Your task to perform on an android device: allow cookies in the chrome app Image 0: 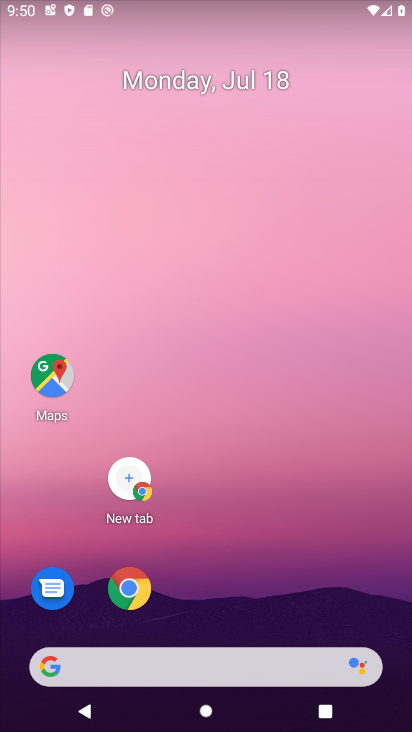
Step 0: click (133, 579)
Your task to perform on an android device: allow cookies in the chrome app Image 1: 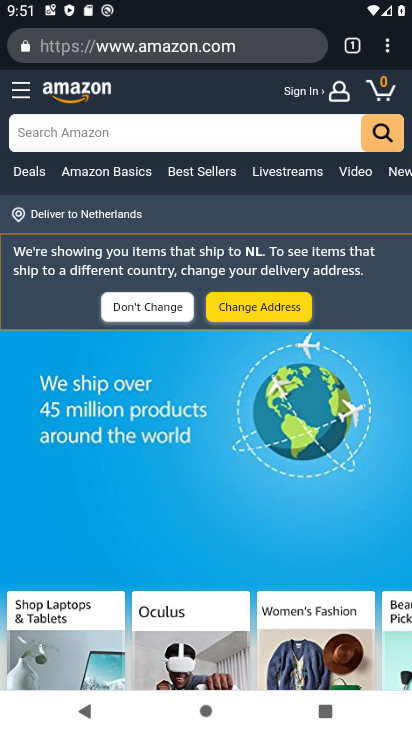
Step 1: click (393, 48)
Your task to perform on an android device: allow cookies in the chrome app Image 2: 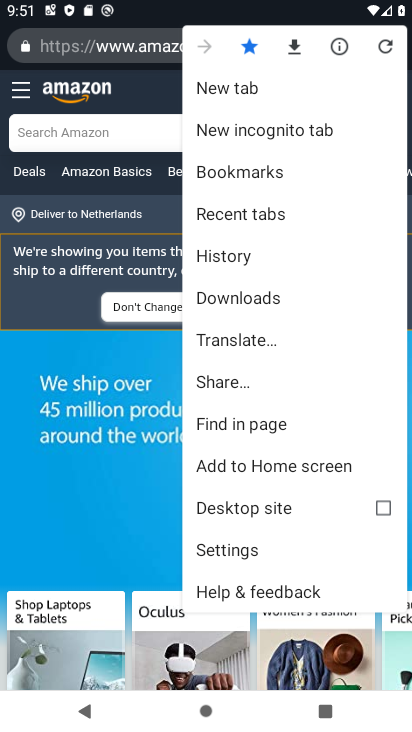
Step 2: click (252, 558)
Your task to perform on an android device: allow cookies in the chrome app Image 3: 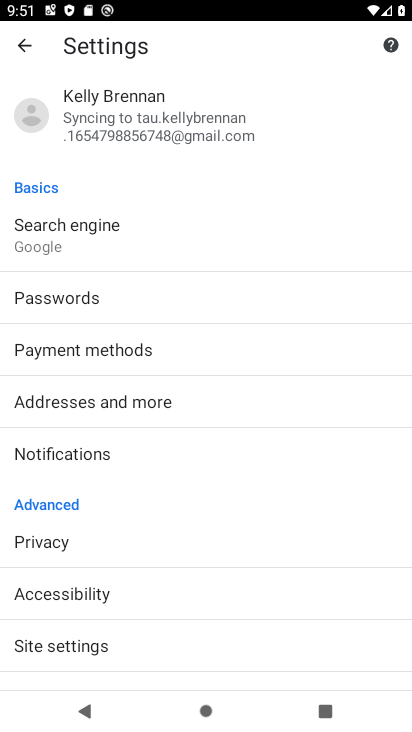
Step 3: drag from (89, 637) to (125, 136)
Your task to perform on an android device: allow cookies in the chrome app Image 4: 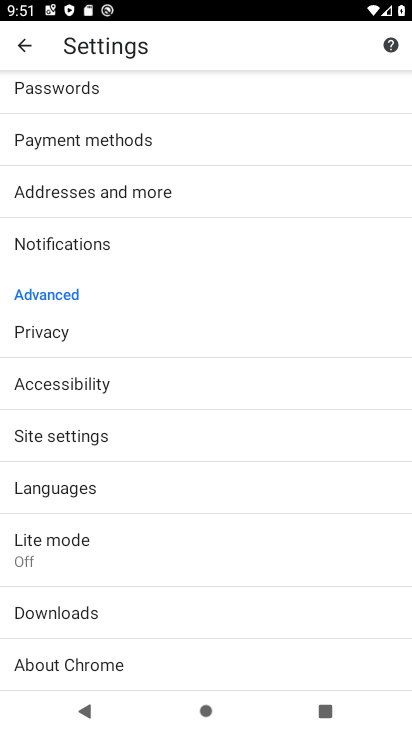
Step 4: click (114, 442)
Your task to perform on an android device: allow cookies in the chrome app Image 5: 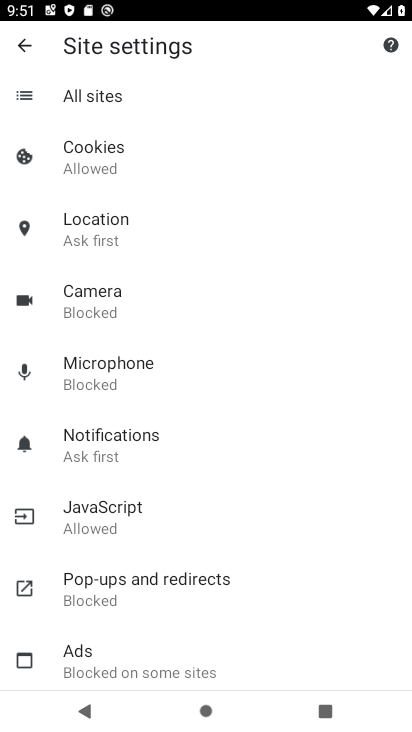
Step 5: click (127, 155)
Your task to perform on an android device: allow cookies in the chrome app Image 6: 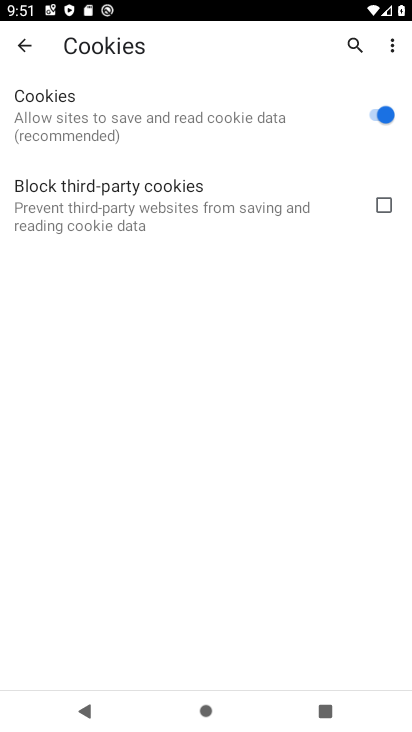
Step 6: task complete